Your task to perform on an android device: turn off data saver in the chrome app Image 0: 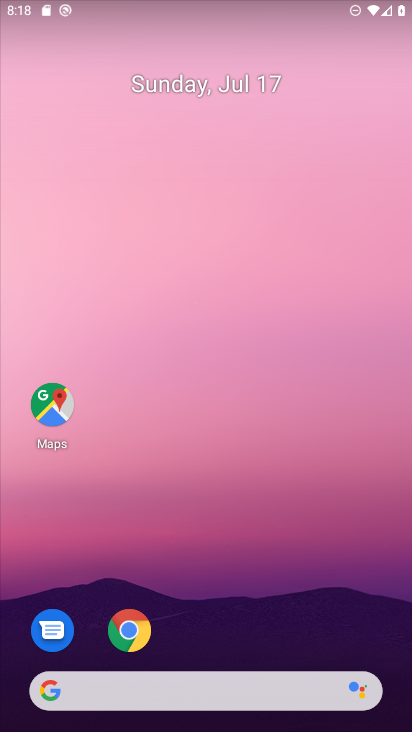
Step 0: drag from (370, 653) to (169, 10)
Your task to perform on an android device: turn off data saver in the chrome app Image 1: 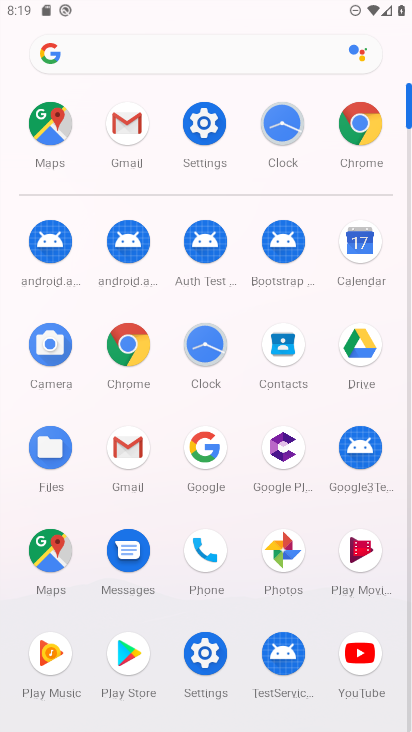
Step 1: click (113, 357)
Your task to perform on an android device: turn off data saver in the chrome app Image 2: 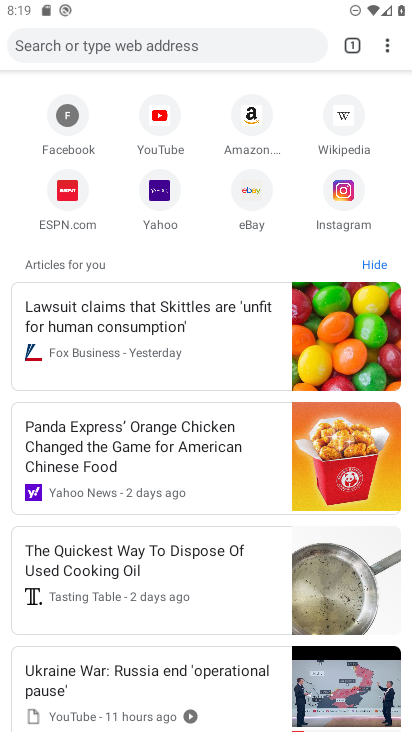
Step 2: click (389, 46)
Your task to perform on an android device: turn off data saver in the chrome app Image 3: 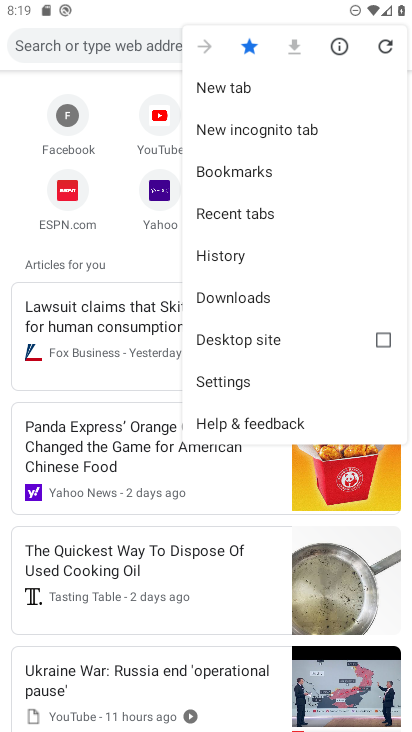
Step 3: click (244, 386)
Your task to perform on an android device: turn off data saver in the chrome app Image 4: 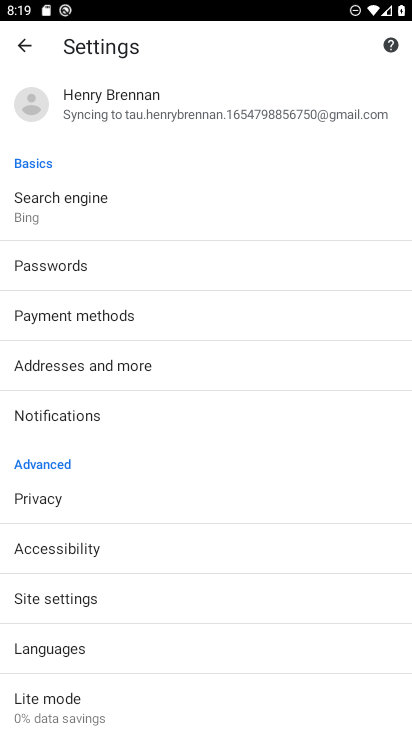
Step 4: click (117, 696)
Your task to perform on an android device: turn off data saver in the chrome app Image 5: 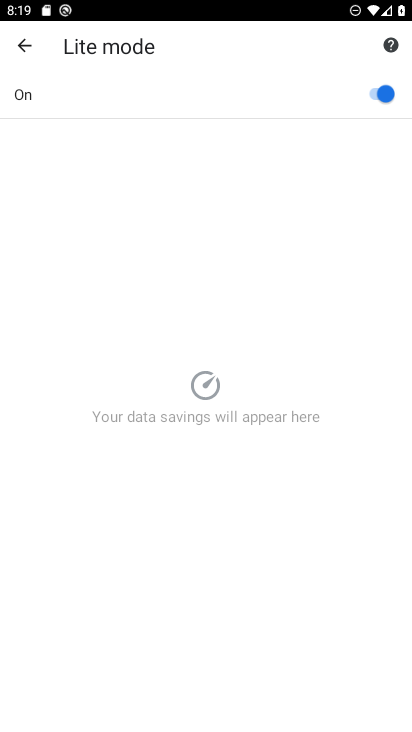
Step 5: click (384, 95)
Your task to perform on an android device: turn off data saver in the chrome app Image 6: 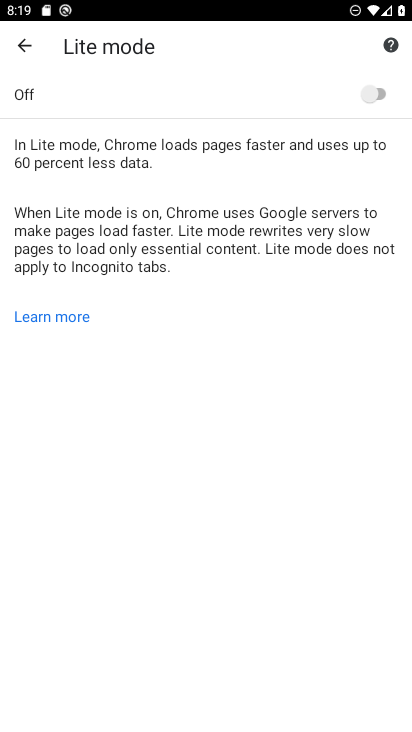
Step 6: task complete